Your task to perform on an android device: visit the assistant section in the google photos Image 0: 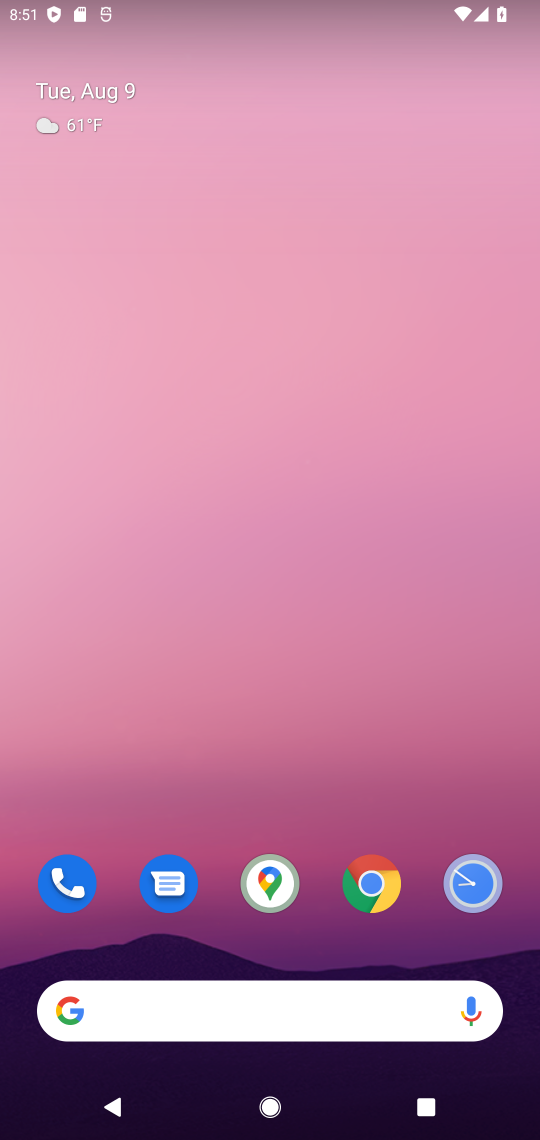
Step 0: drag from (397, 813) to (268, 85)
Your task to perform on an android device: visit the assistant section in the google photos Image 1: 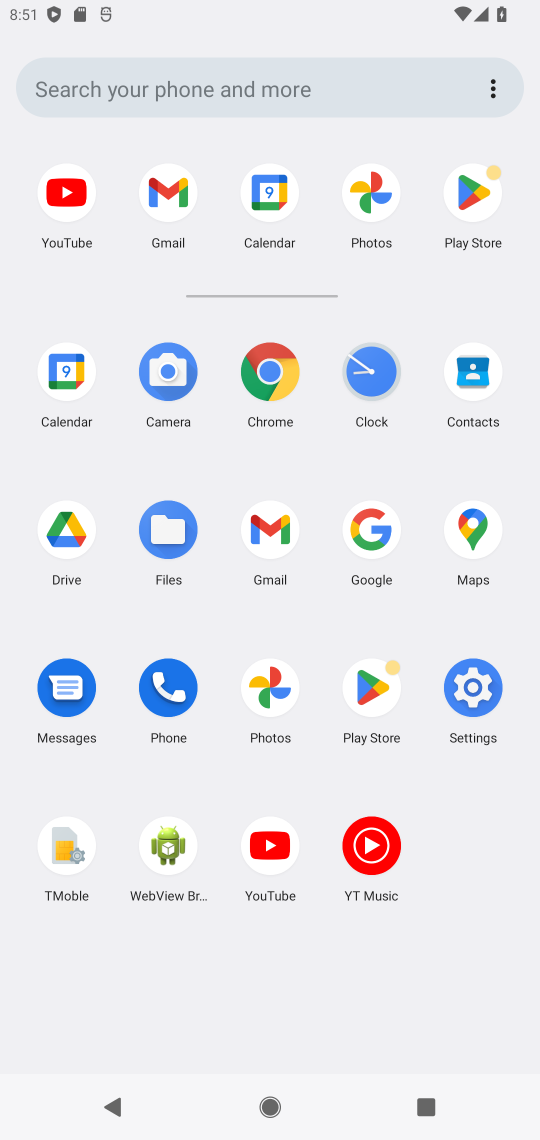
Step 1: click (290, 680)
Your task to perform on an android device: visit the assistant section in the google photos Image 2: 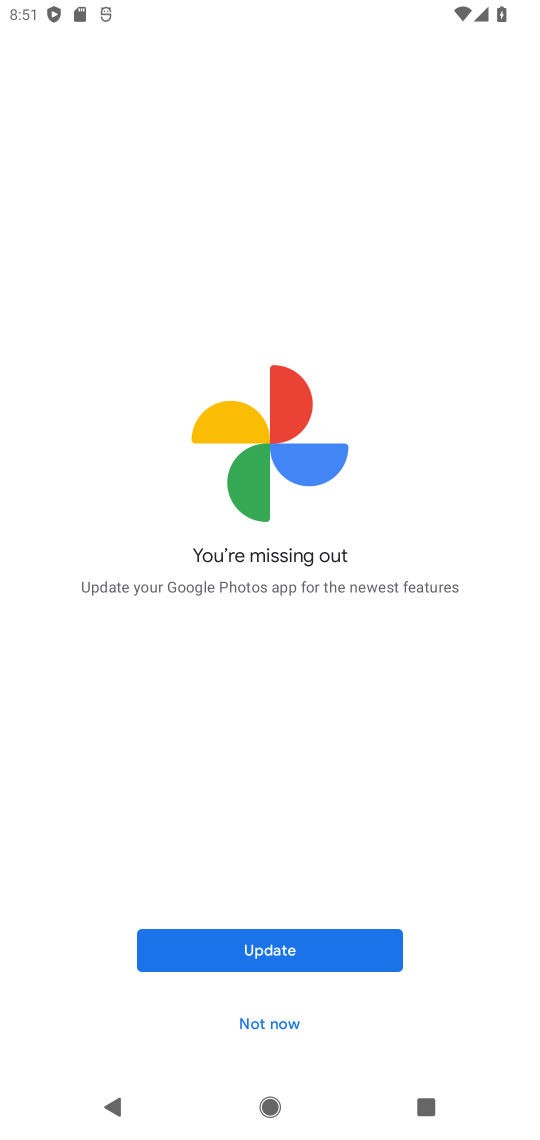
Step 2: click (253, 1004)
Your task to perform on an android device: visit the assistant section in the google photos Image 3: 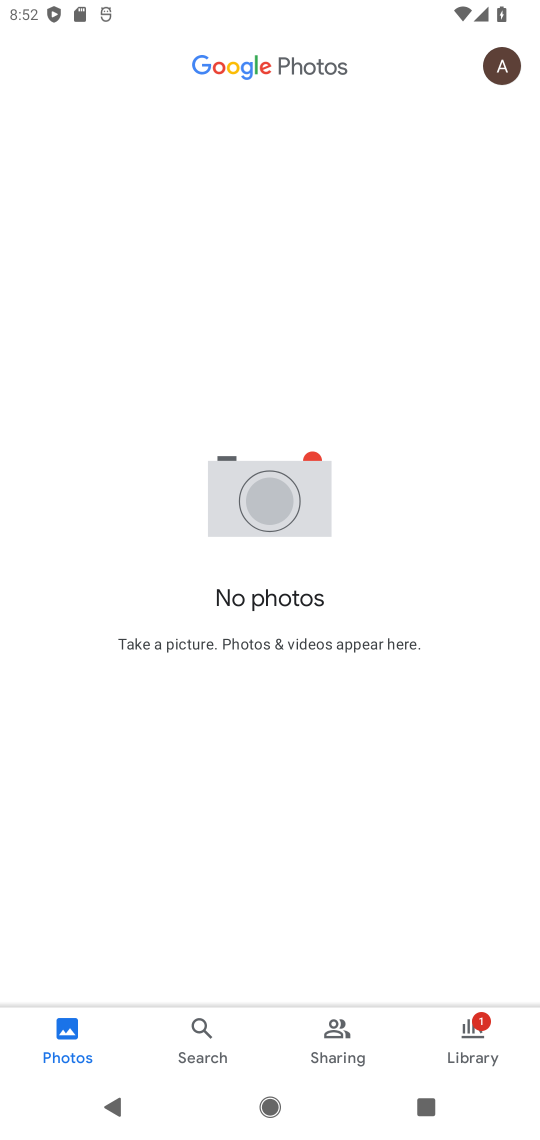
Step 3: click (482, 1049)
Your task to perform on an android device: visit the assistant section in the google photos Image 4: 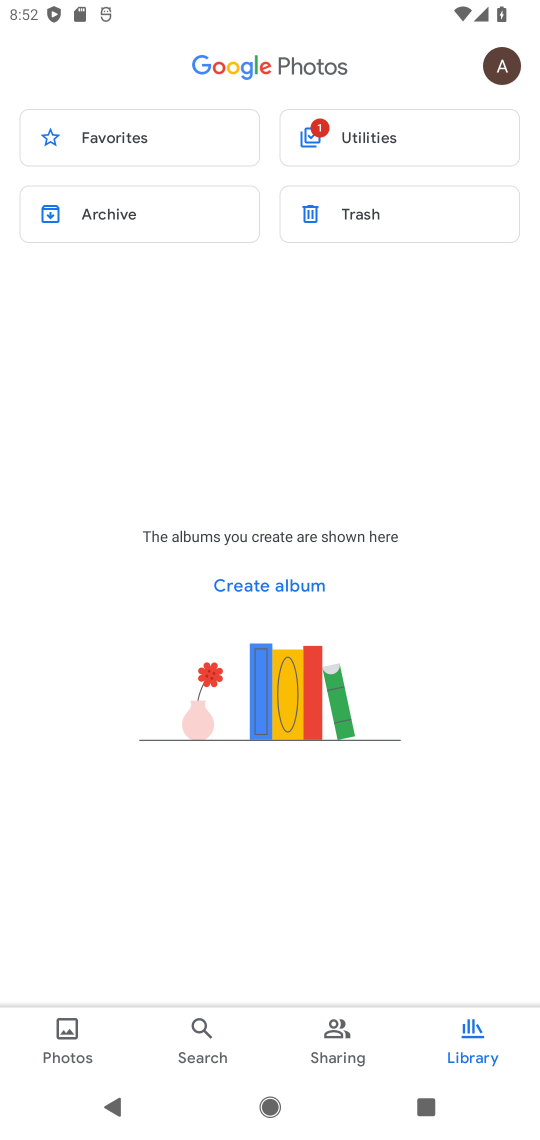
Step 4: click (357, 137)
Your task to perform on an android device: visit the assistant section in the google photos Image 5: 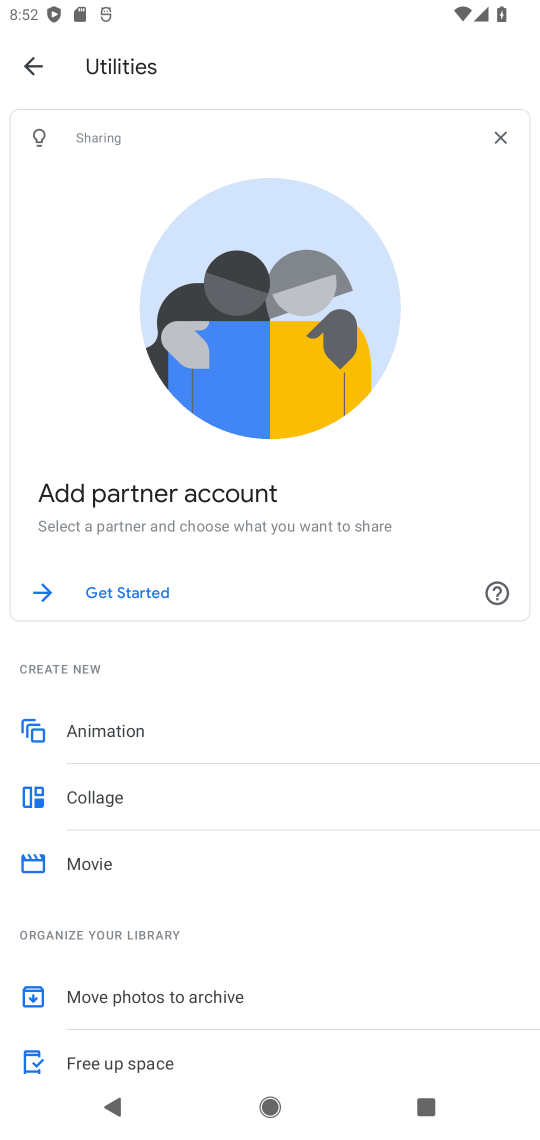
Step 5: task complete